Your task to perform on an android device: Go to Android settings Image 0: 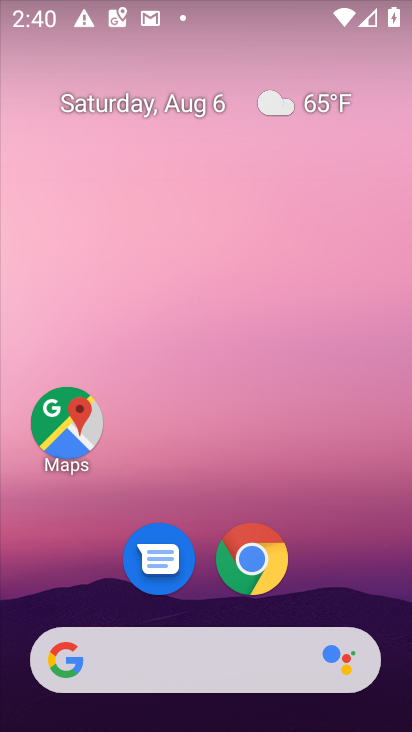
Step 0: drag from (195, 508) to (204, 128)
Your task to perform on an android device: Go to Android settings Image 1: 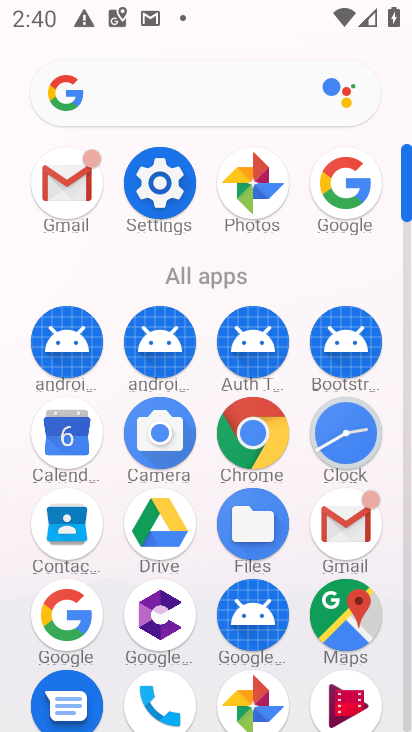
Step 1: click (140, 181)
Your task to perform on an android device: Go to Android settings Image 2: 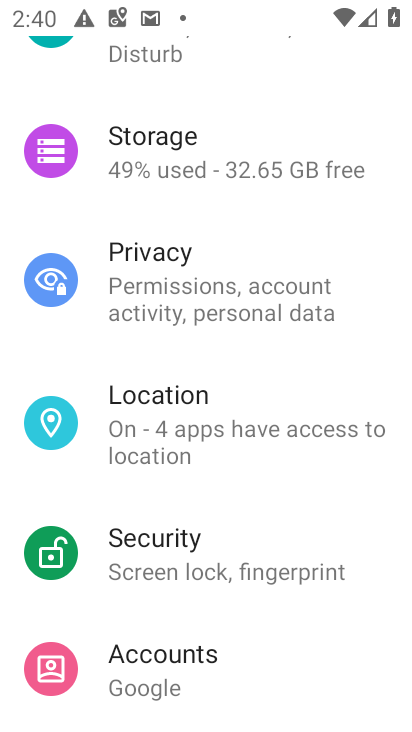
Step 2: task complete